Your task to perform on an android device: change the clock style Image 0: 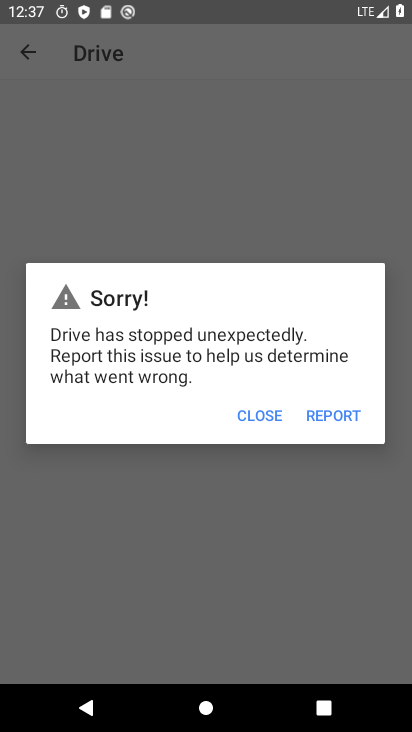
Step 0: press home button
Your task to perform on an android device: change the clock style Image 1: 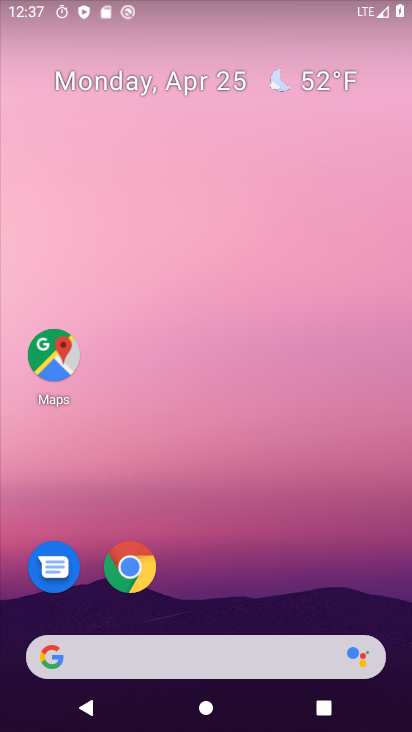
Step 1: drag from (273, 449) to (263, 1)
Your task to perform on an android device: change the clock style Image 2: 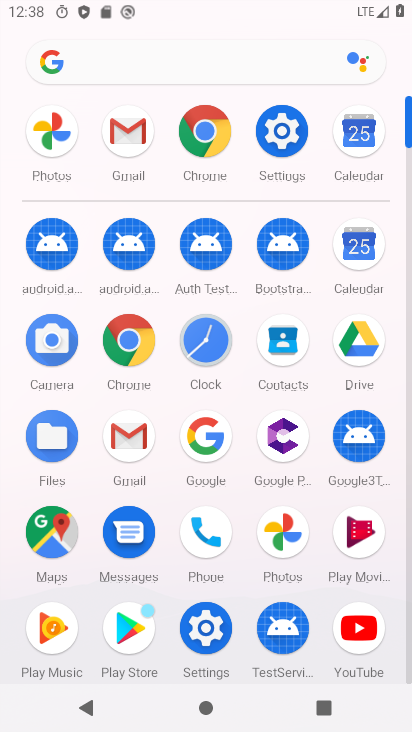
Step 2: click (218, 345)
Your task to perform on an android device: change the clock style Image 3: 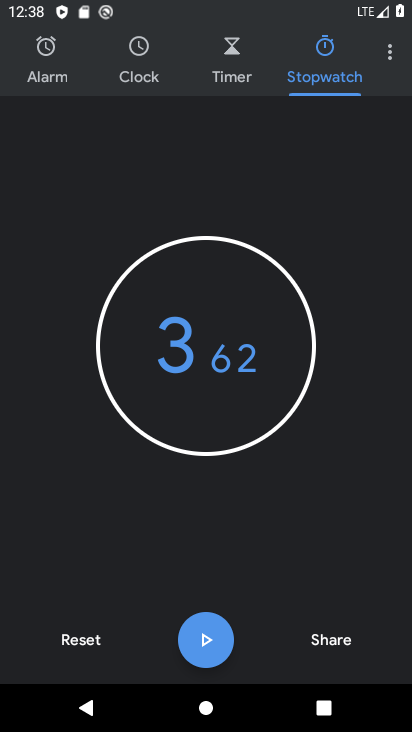
Step 3: click (387, 56)
Your task to perform on an android device: change the clock style Image 4: 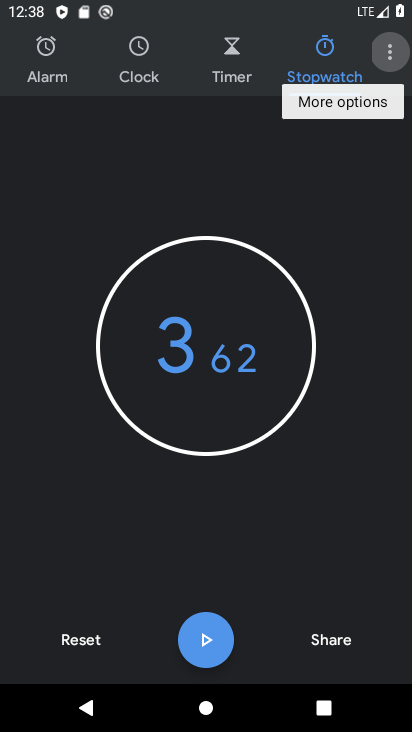
Step 4: click (387, 56)
Your task to perform on an android device: change the clock style Image 5: 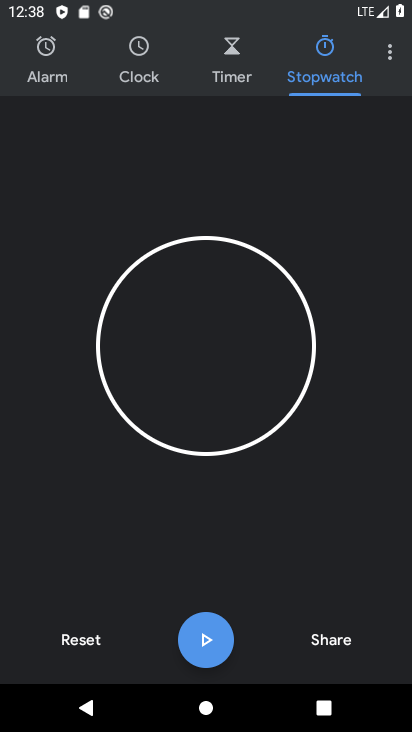
Step 5: click (387, 59)
Your task to perform on an android device: change the clock style Image 6: 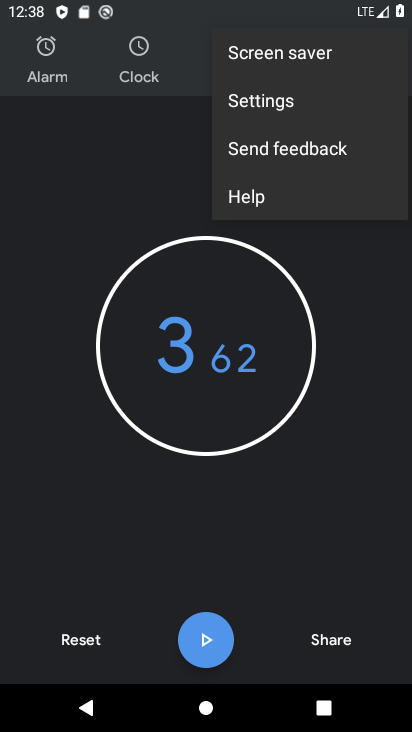
Step 6: click (337, 97)
Your task to perform on an android device: change the clock style Image 7: 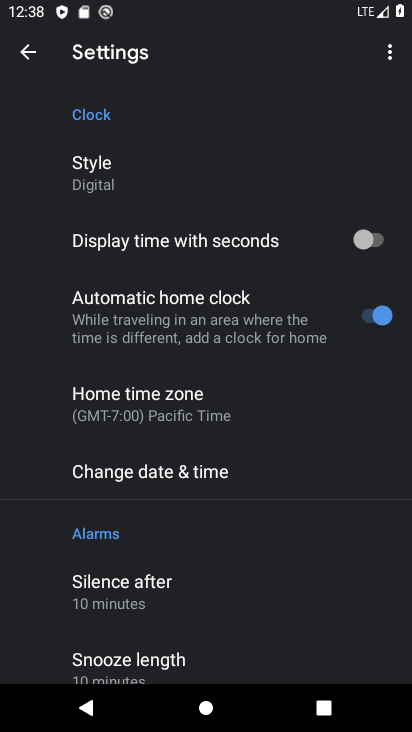
Step 7: click (190, 185)
Your task to perform on an android device: change the clock style Image 8: 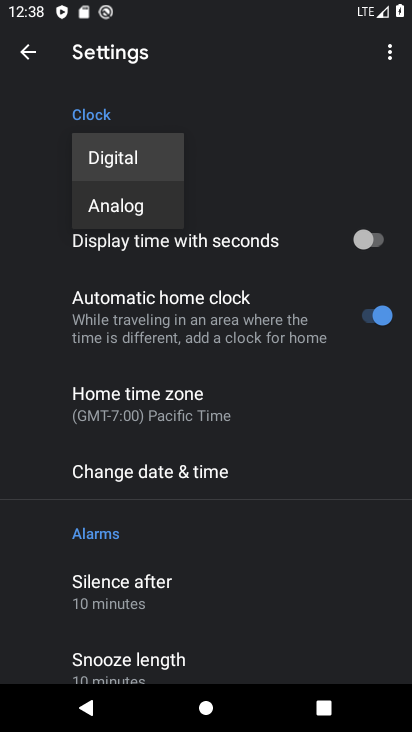
Step 8: click (171, 197)
Your task to perform on an android device: change the clock style Image 9: 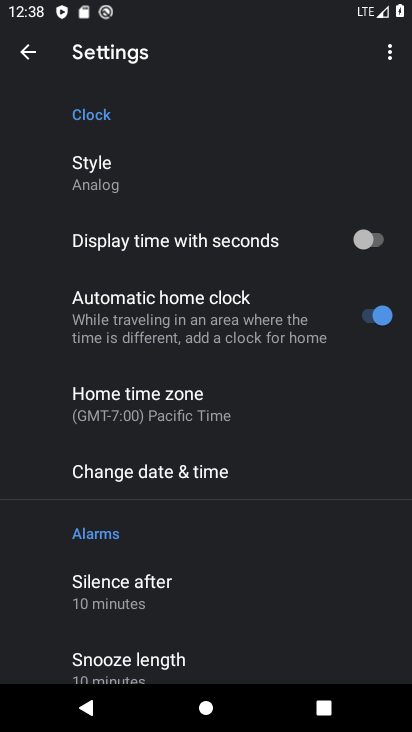
Step 9: task complete